Your task to perform on an android device: uninstall "Google Play Music" Image 0: 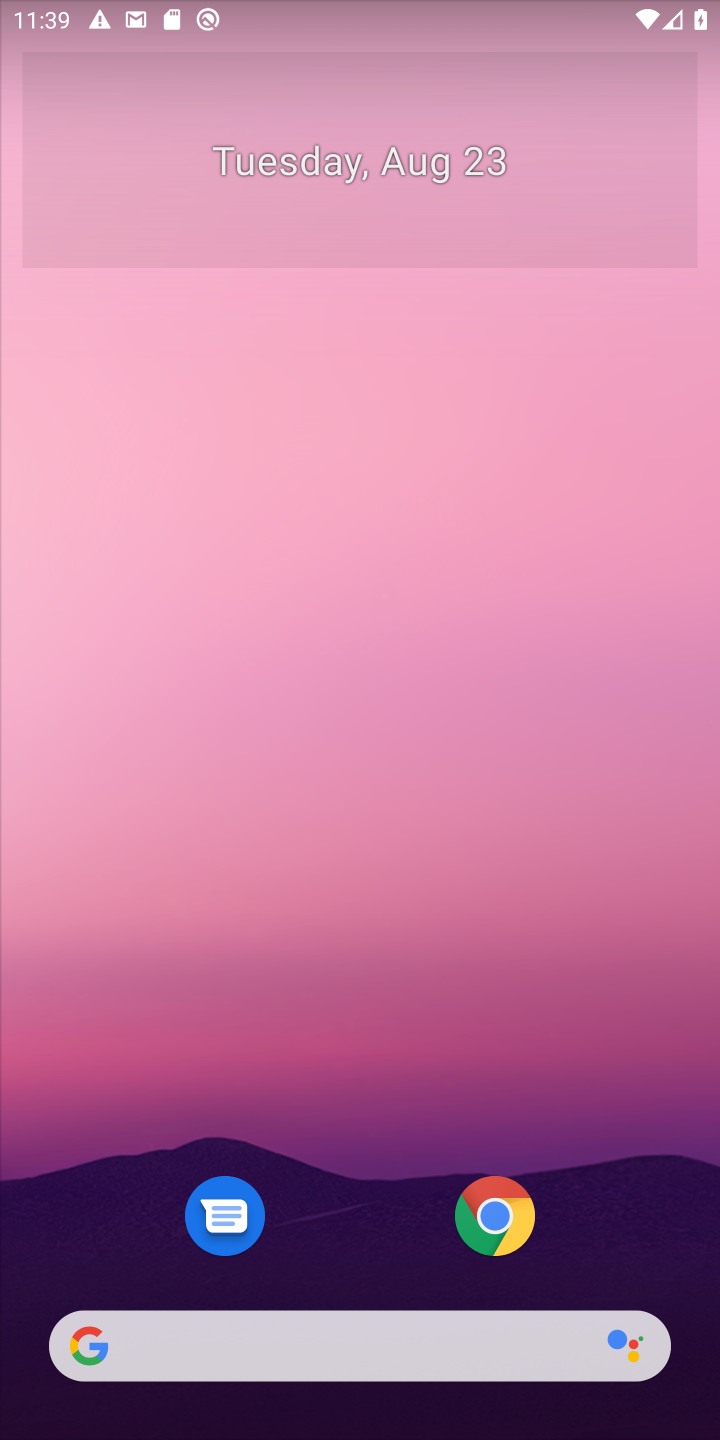
Step 0: drag from (316, 1335) to (339, 7)
Your task to perform on an android device: uninstall "Google Play Music" Image 1: 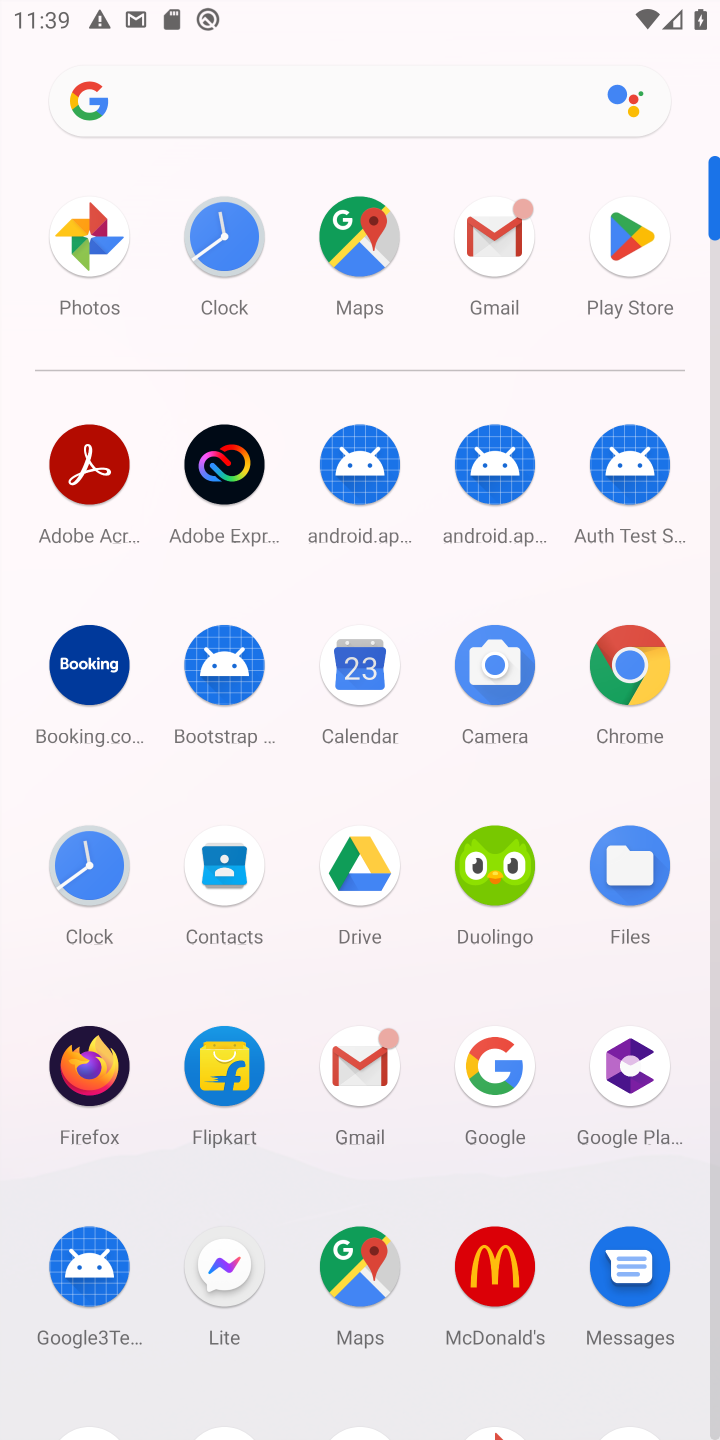
Step 1: click (629, 249)
Your task to perform on an android device: uninstall "Google Play Music" Image 2: 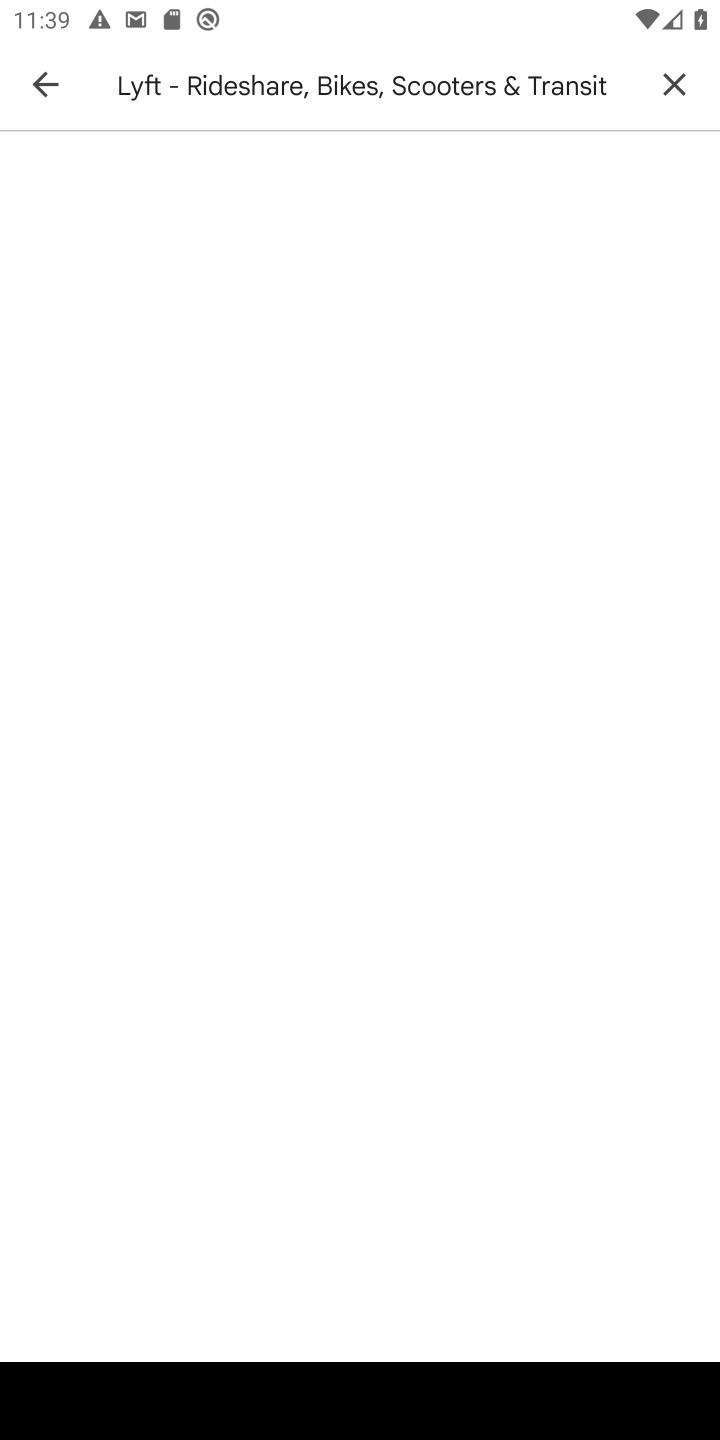
Step 2: press back button
Your task to perform on an android device: uninstall "Google Play Music" Image 3: 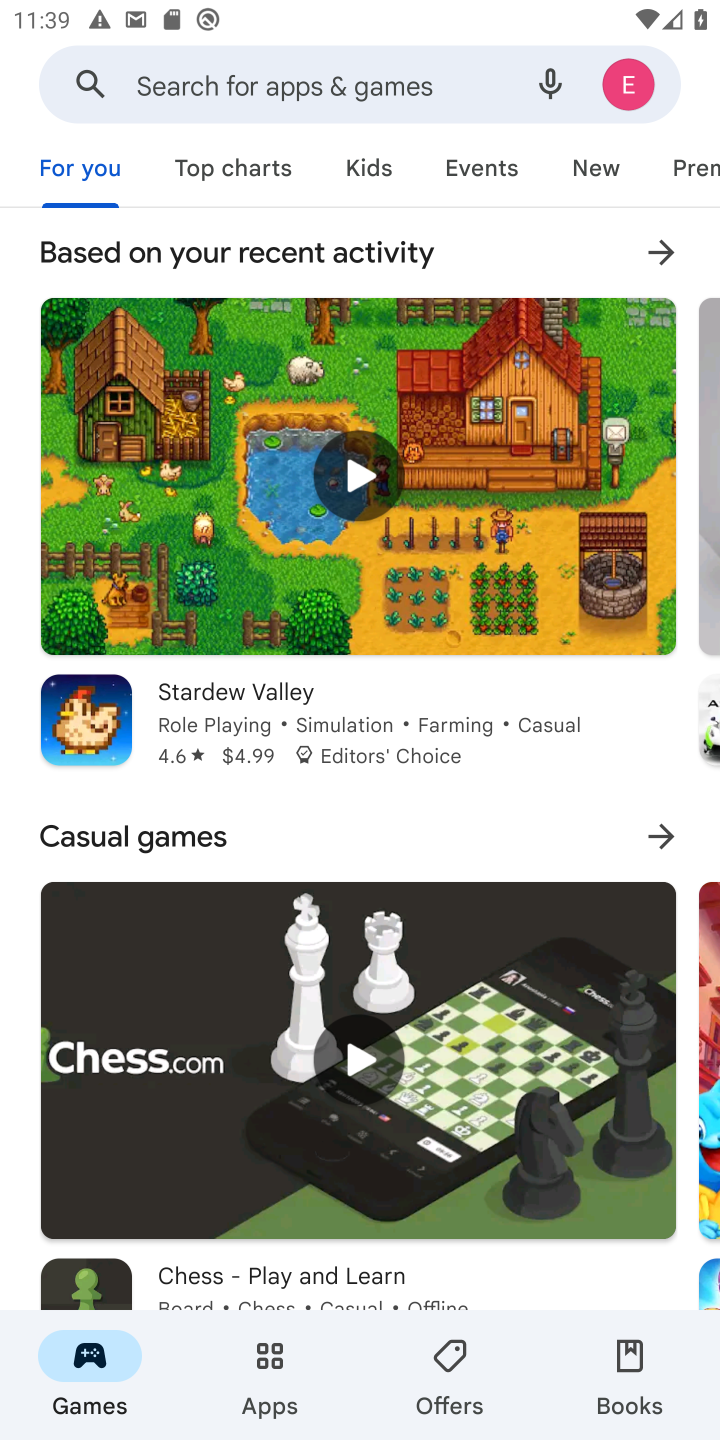
Step 3: click (391, 99)
Your task to perform on an android device: uninstall "Google Play Music" Image 4: 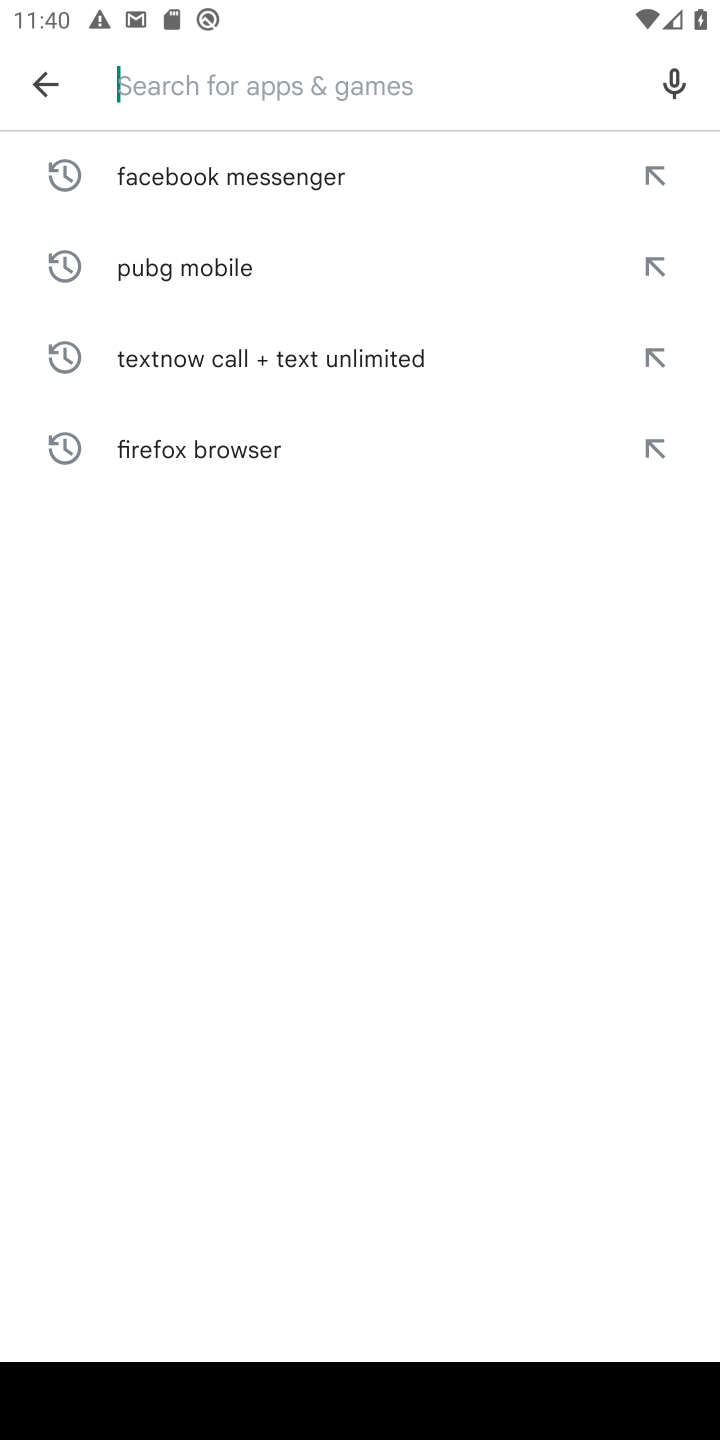
Step 4: type "Google Play Music"
Your task to perform on an android device: uninstall "Google Play Music" Image 5: 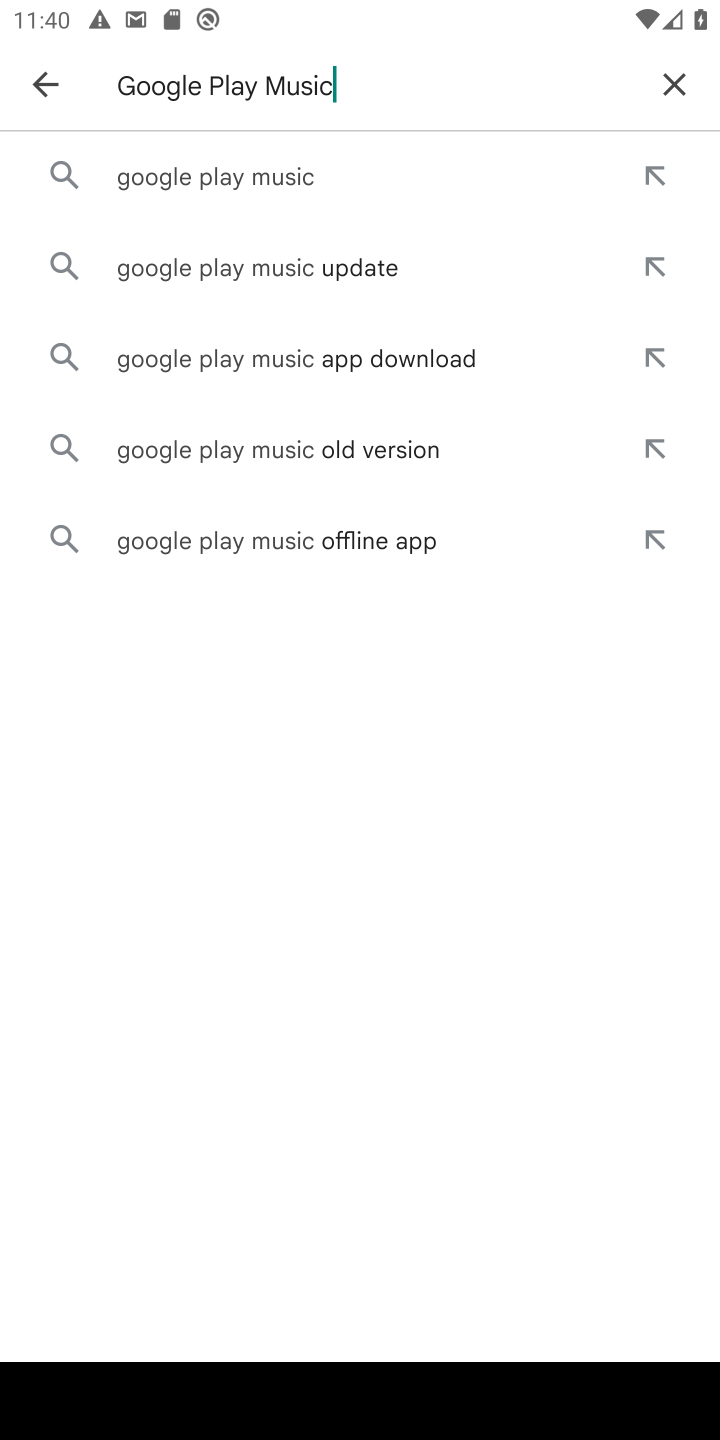
Step 5: click (272, 189)
Your task to perform on an android device: uninstall "Google Play Music" Image 6: 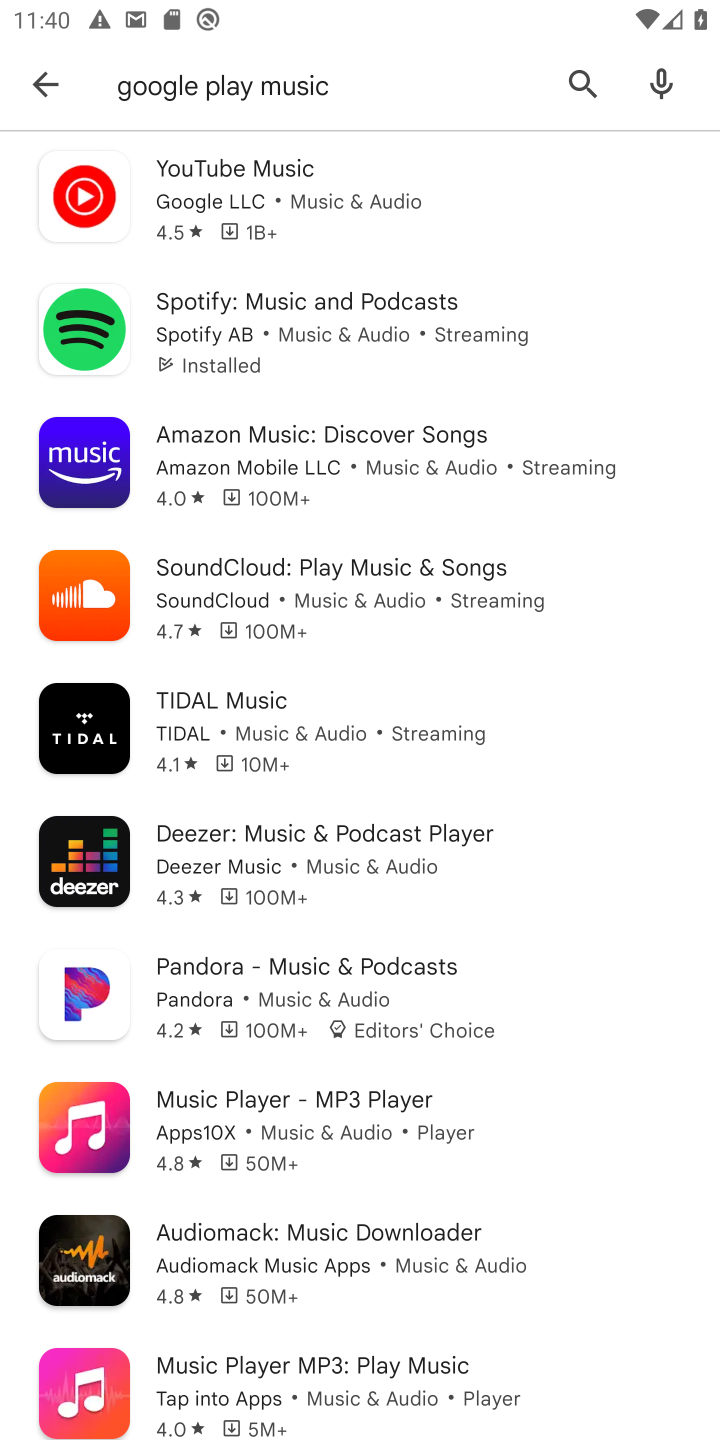
Step 6: task complete